Your task to perform on an android device: remove spam from my inbox in the gmail app Image 0: 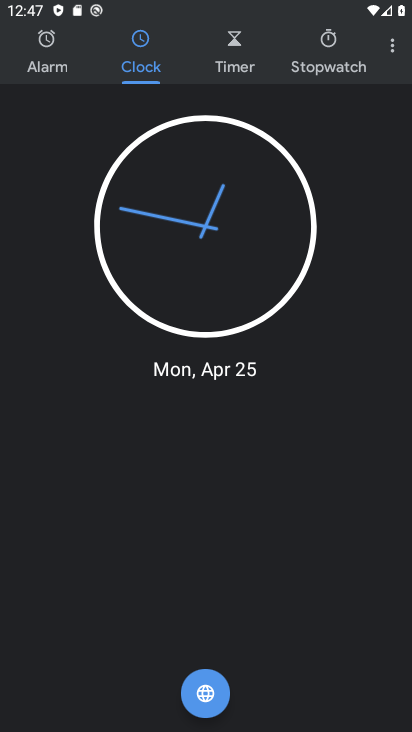
Step 0: press back button
Your task to perform on an android device: remove spam from my inbox in the gmail app Image 1: 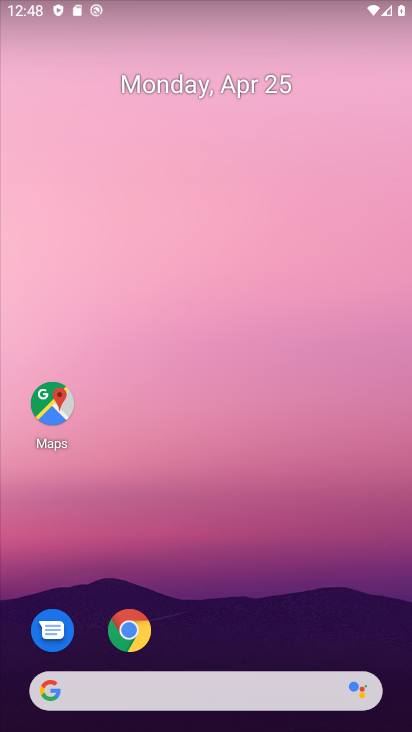
Step 1: drag from (176, 652) to (313, 26)
Your task to perform on an android device: remove spam from my inbox in the gmail app Image 2: 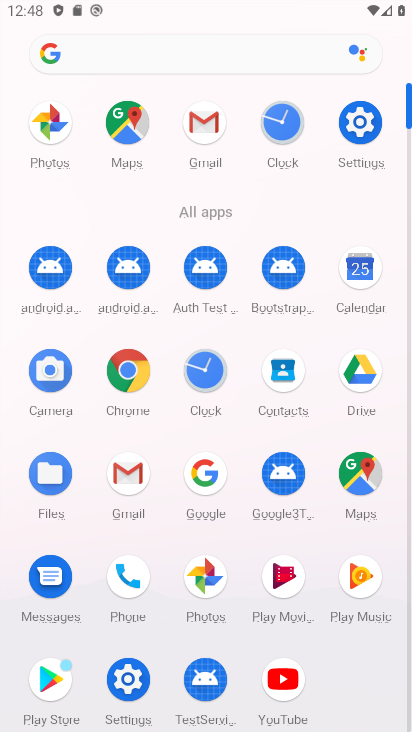
Step 2: click (131, 469)
Your task to perform on an android device: remove spam from my inbox in the gmail app Image 3: 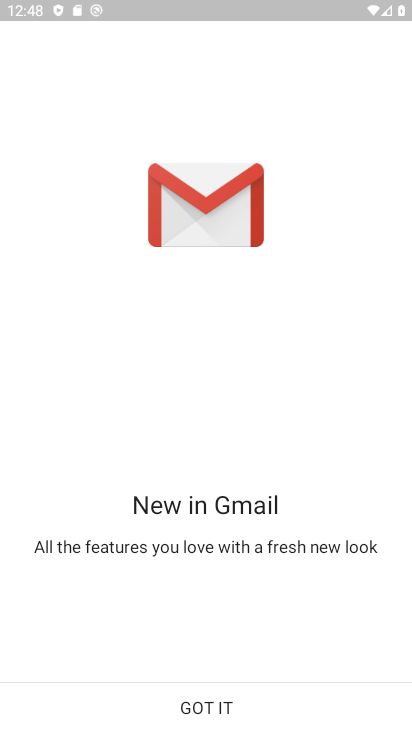
Step 3: click (235, 727)
Your task to perform on an android device: remove spam from my inbox in the gmail app Image 4: 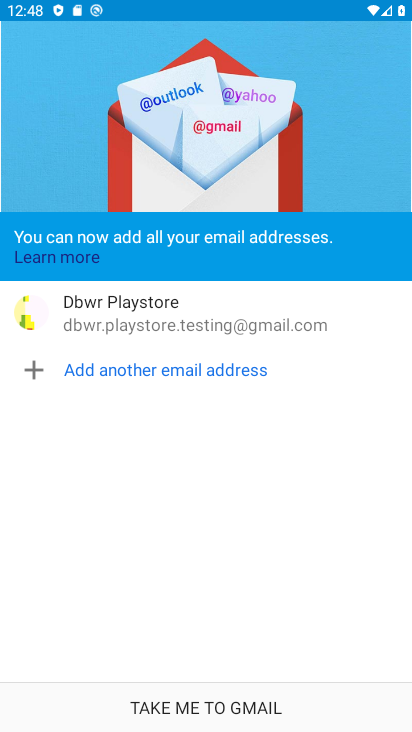
Step 4: click (225, 715)
Your task to perform on an android device: remove spam from my inbox in the gmail app Image 5: 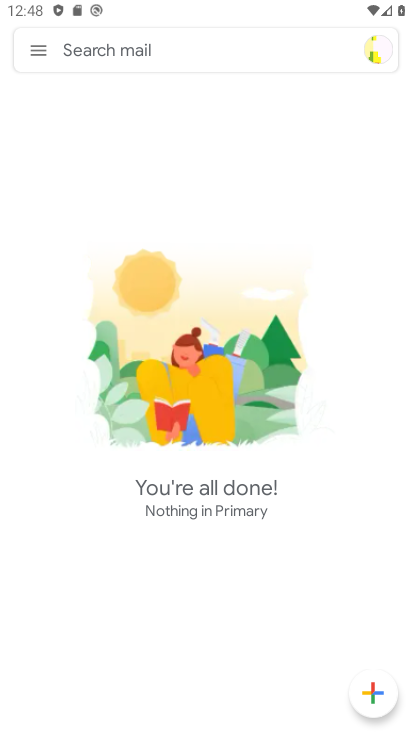
Step 5: click (47, 52)
Your task to perform on an android device: remove spam from my inbox in the gmail app Image 6: 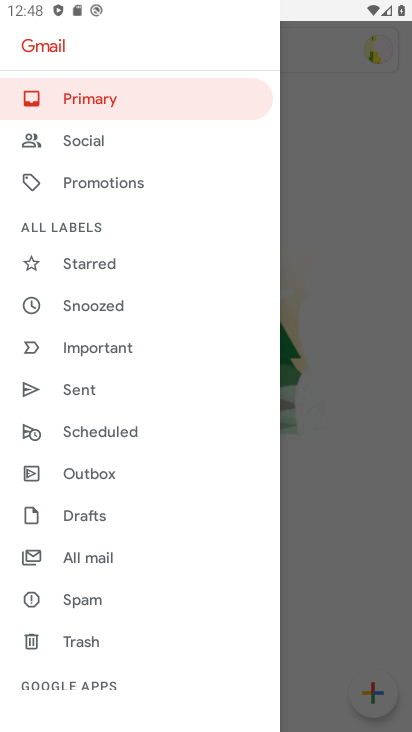
Step 6: click (113, 601)
Your task to perform on an android device: remove spam from my inbox in the gmail app Image 7: 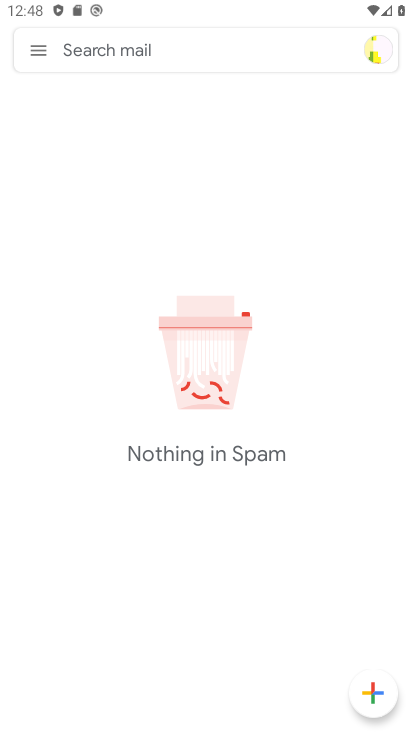
Step 7: task complete